Your task to perform on an android device: Open calendar and show me the fourth week of next month Image 0: 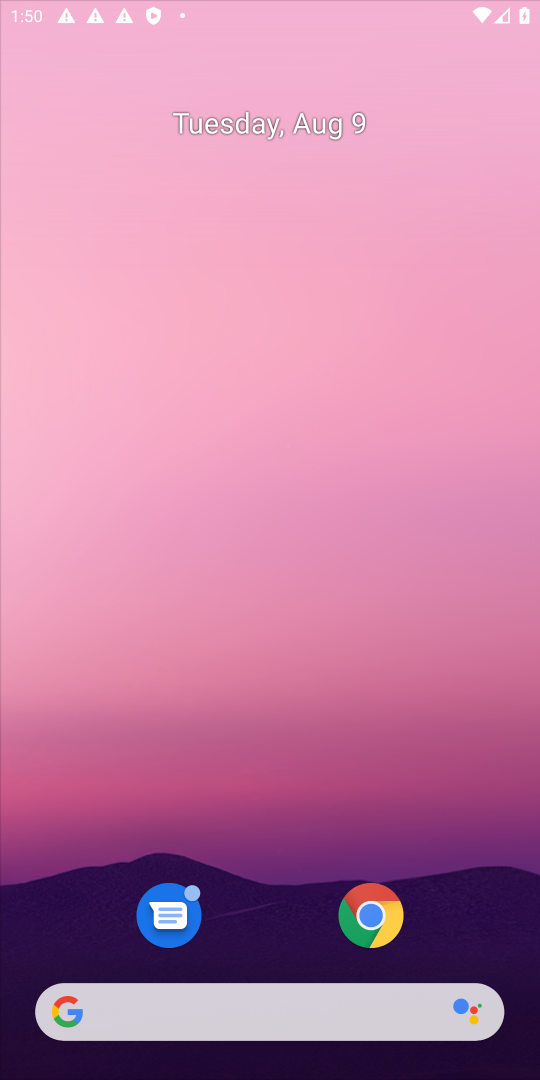
Step 0: click (164, 148)
Your task to perform on an android device: Open calendar and show me the fourth week of next month Image 1: 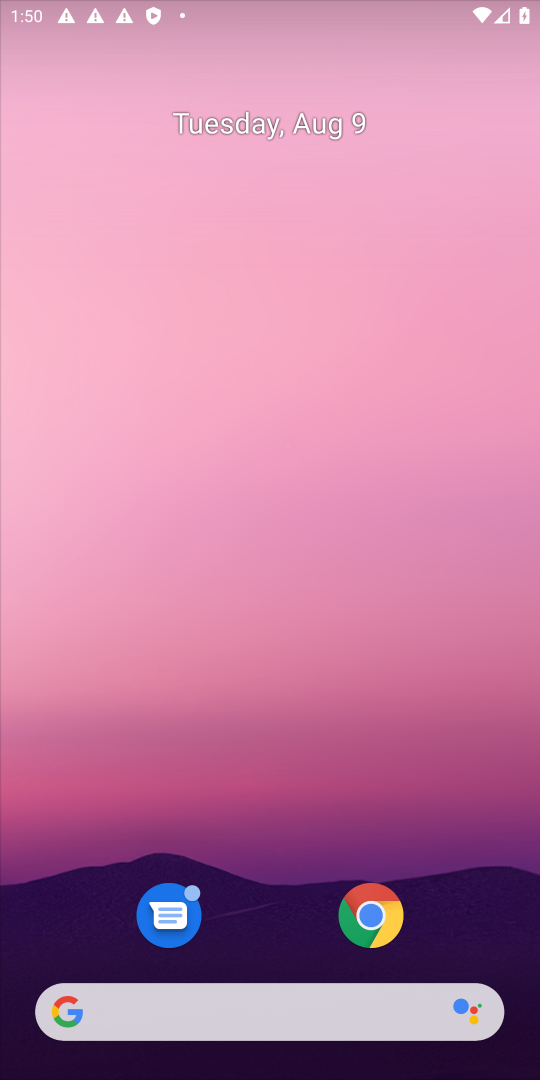
Step 1: drag from (273, 830) to (202, 137)
Your task to perform on an android device: Open calendar and show me the fourth week of next month Image 2: 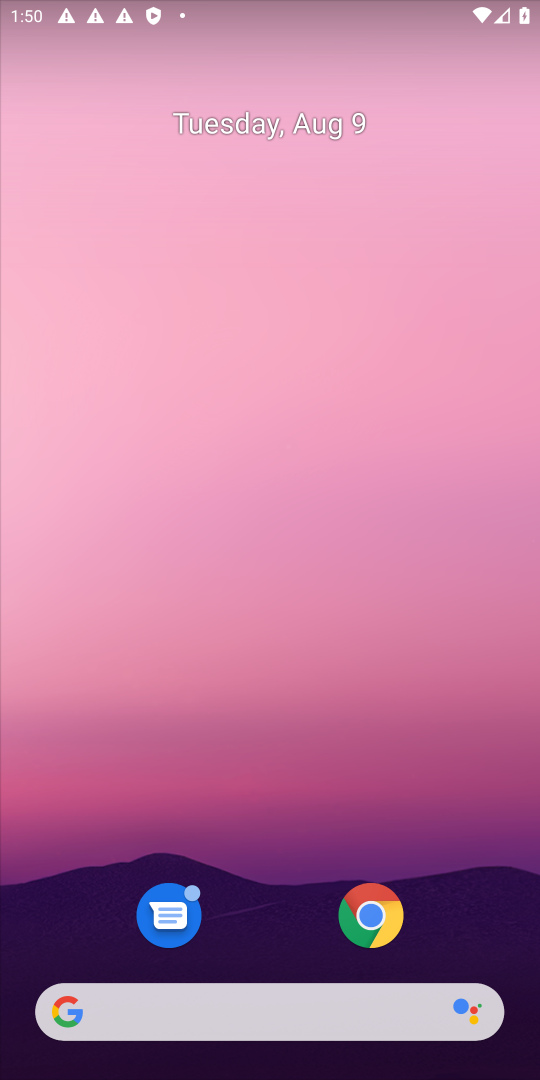
Step 2: drag from (254, 731) to (243, 303)
Your task to perform on an android device: Open calendar and show me the fourth week of next month Image 3: 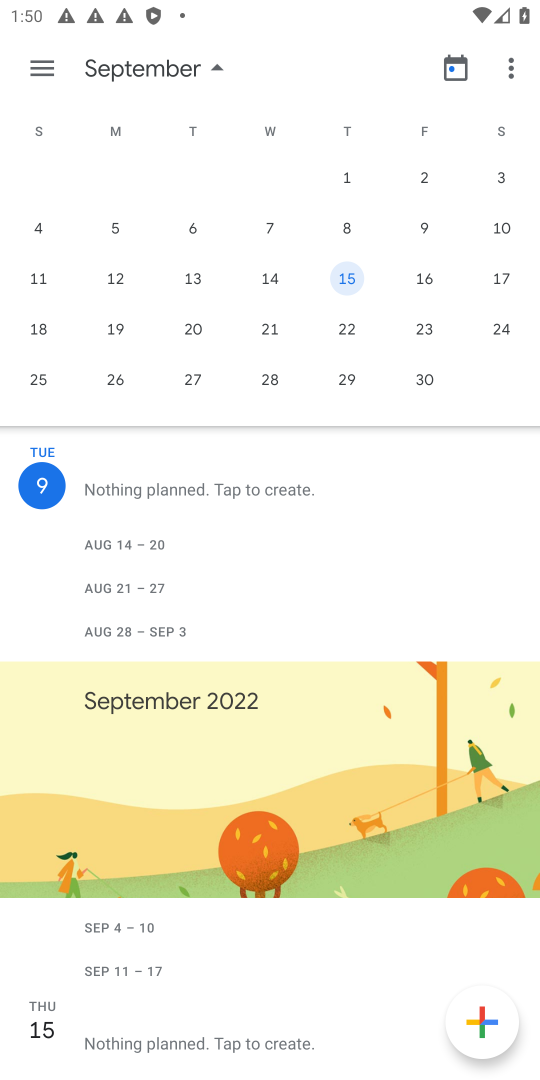
Step 3: click (349, 326)
Your task to perform on an android device: Open calendar and show me the fourth week of next month Image 4: 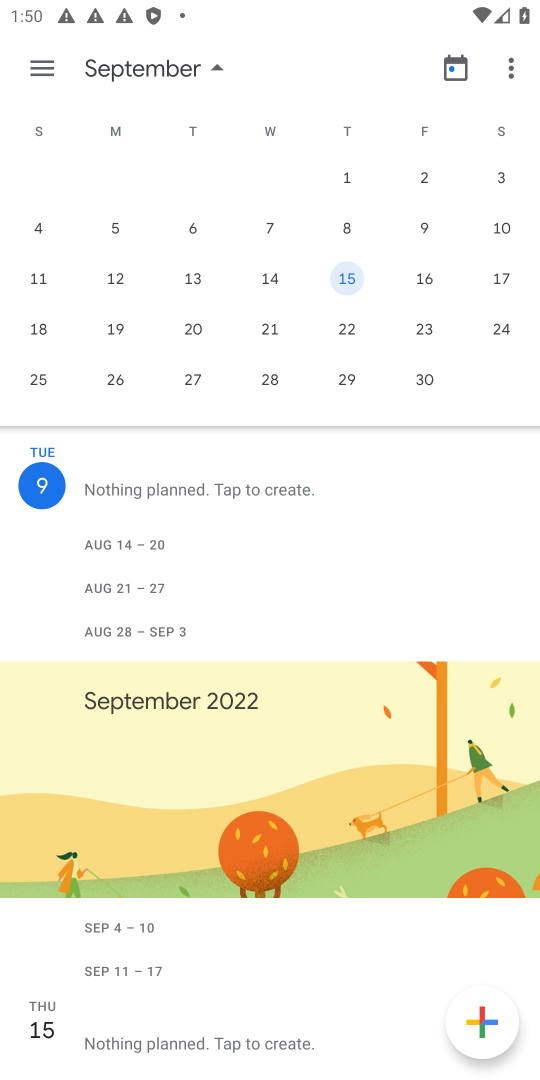
Step 4: click (348, 338)
Your task to perform on an android device: Open calendar and show me the fourth week of next month Image 5: 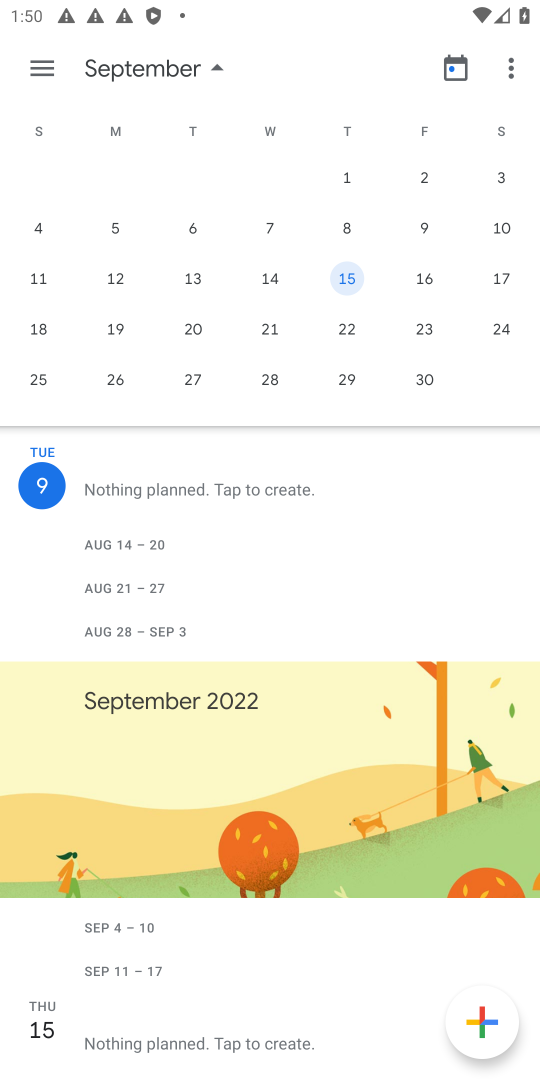
Step 5: click (348, 338)
Your task to perform on an android device: Open calendar and show me the fourth week of next month Image 6: 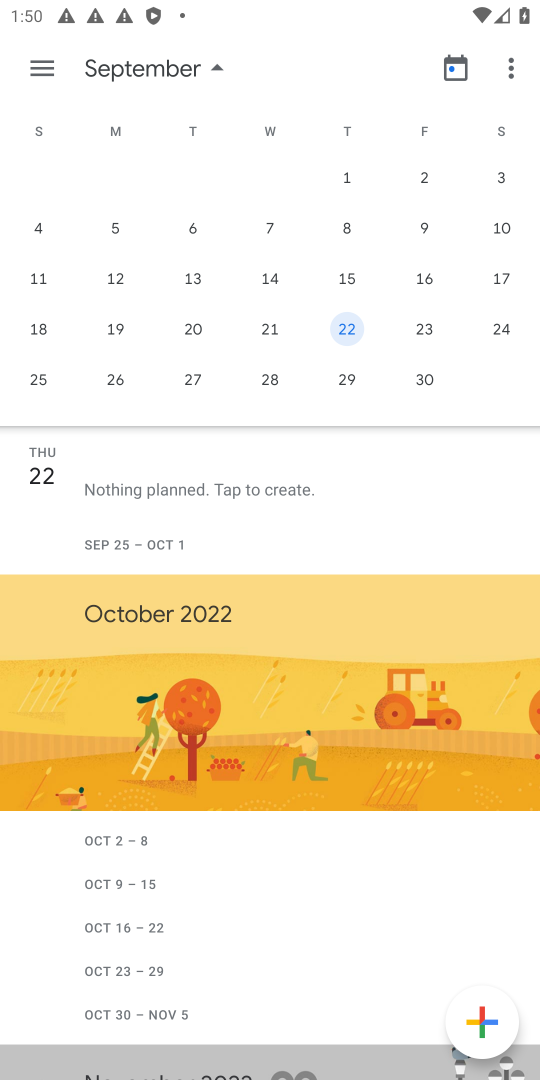
Step 6: click (345, 336)
Your task to perform on an android device: Open calendar and show me the fourth week of next month Image 7: 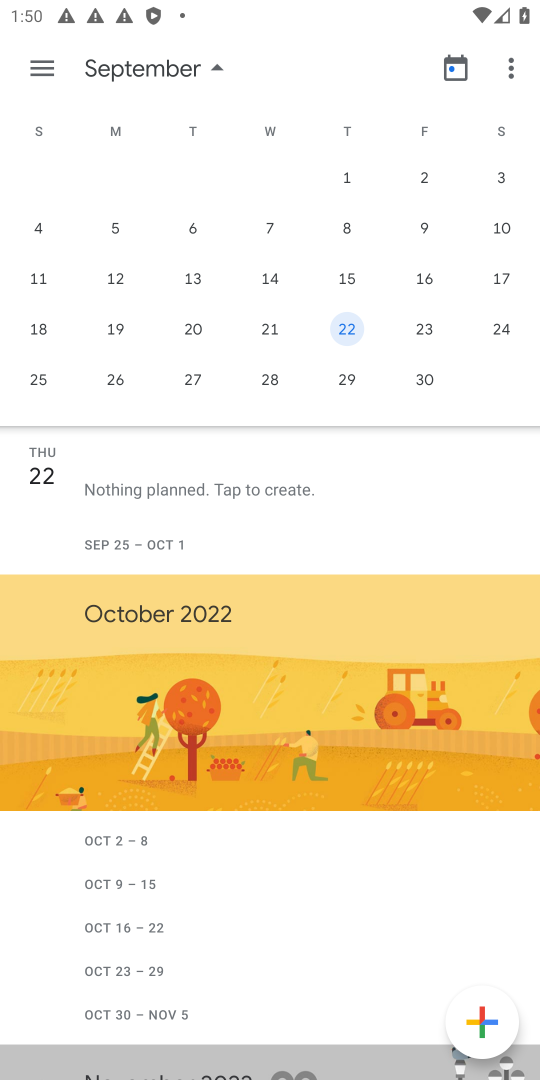
Step 7: click (345, 334)
Your task to perform on an android device: Open calendar and show me the fourth week of next month Image 8: 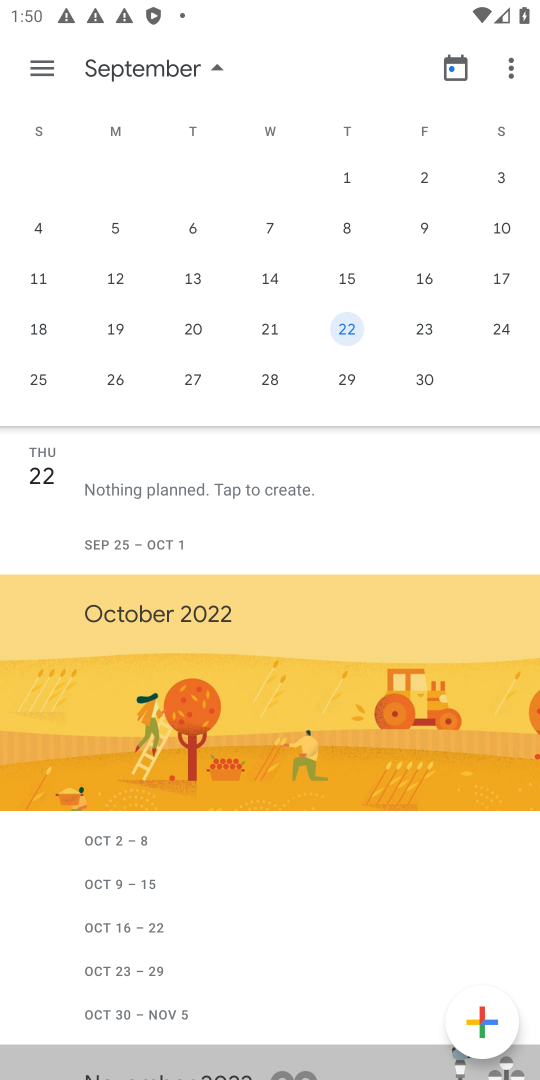
Step 8: task complete